Your task to perform on an android device: change notification settings in the gmail app Image 0: 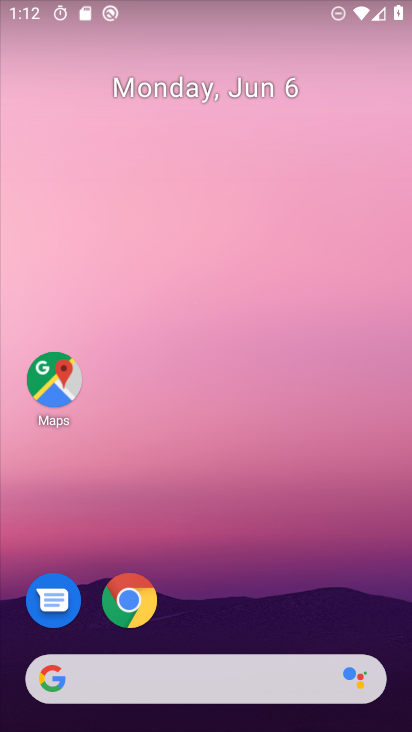
Step 0: drag from (207, 629) to (210, 201)
Your task to perform on an android device: change notification settings in the gmail app Image 1: 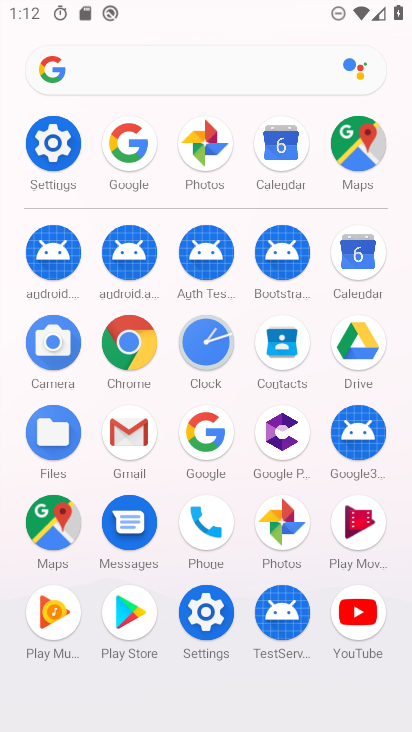
Step 1: click (125, 424)
Your task to perform on an android device: change notification settings in the gmail app Image 2: 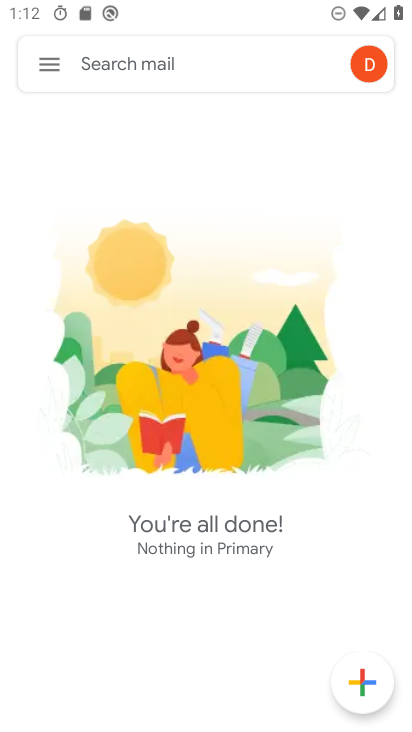
Step 2: click (47, 76)
Your task to perform on an android device: change notification settings in the gmail app Image 3: 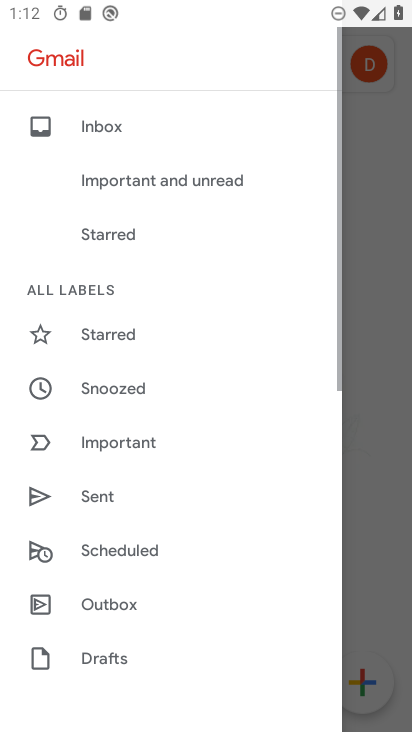
Step 3: drag from (157, 619) to (176, 259)
Your task to perform on an android device: change notification settings in the gmail app Image 4: 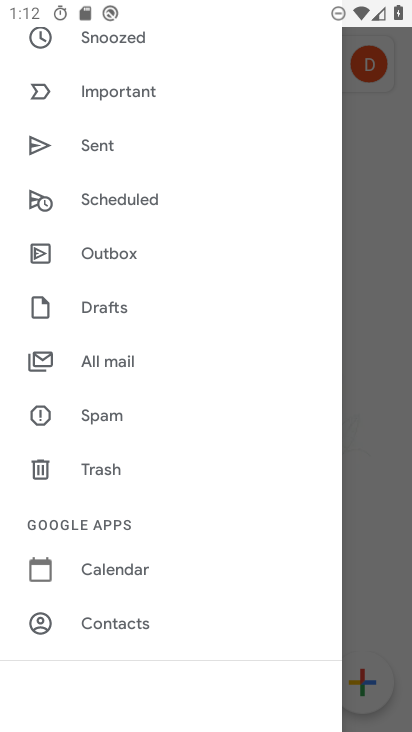
Step 4: drag from (164, 615) to (201, 378)
Your task to perform on an android device: change notification settings in the gmail app Image 5: 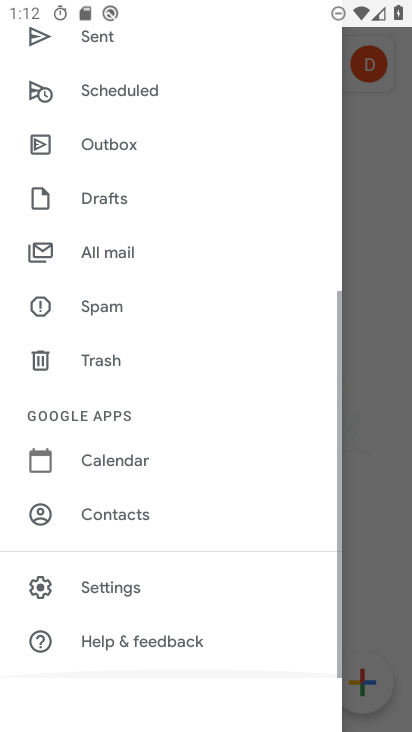
Step 5: click (113, 612)
Your task to perform on an android device: change notification settings in the gmail app Image 6: 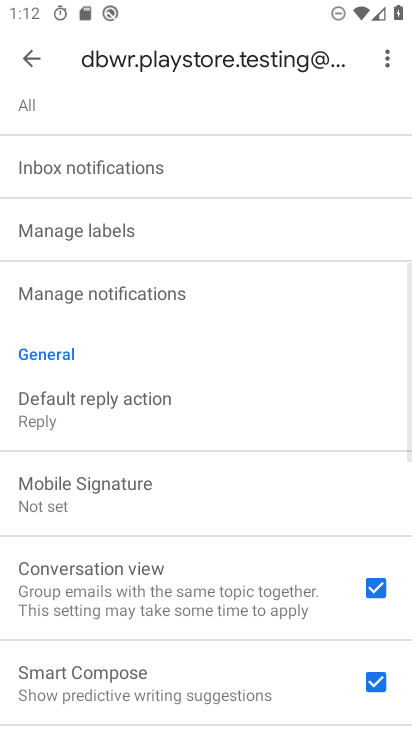
Step 6: drag from (159, 580) to (252, 297)
Your task to perform on an android device: change notification settings in the gmail app Image 7: 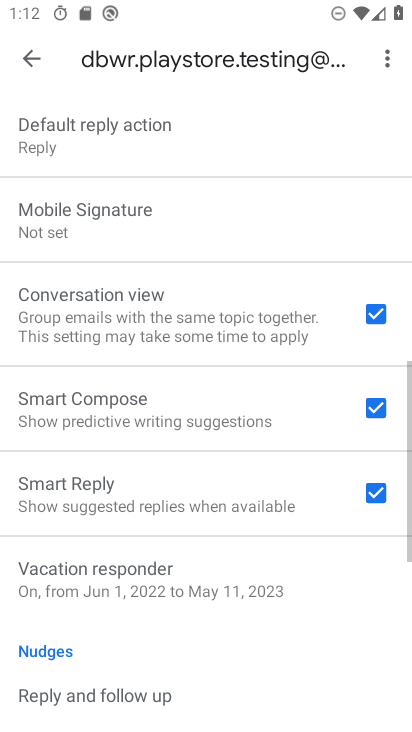
Step 7: drag from (183, 614) to (241, 235)
Your task to perform on an android device: change notification settings in the gmail app Image 8: 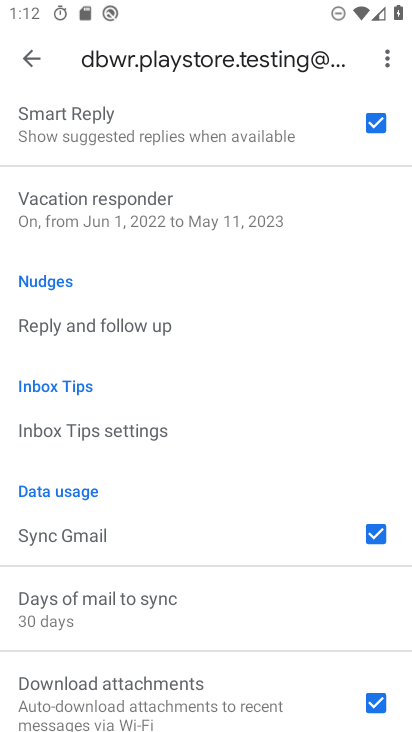
Step 8: drag from (246, 615) to (286, 241)
Your task to perform on an android device: change notification settings in the gmail app Image 9: 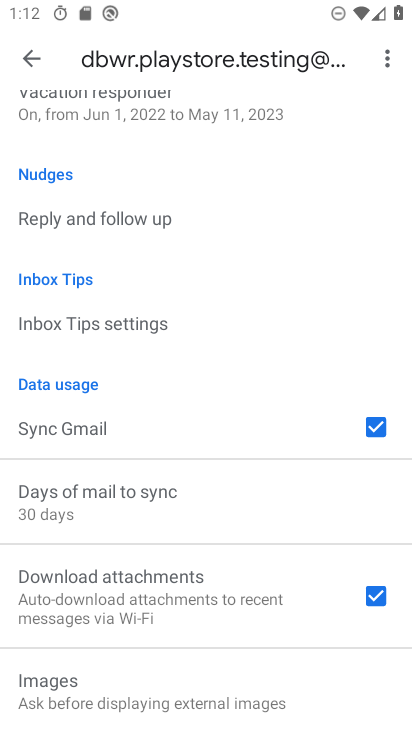
Step 9: drag from (189, 234) to (188, 583)
Your task to perform on an android device: change notification settings in the gmail app Image 10: 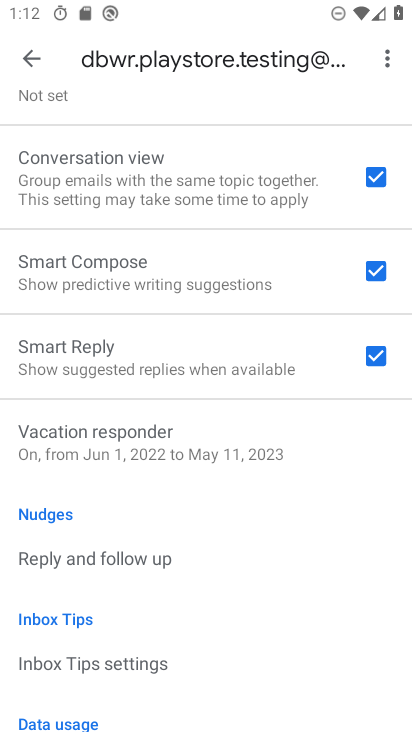
Step 10: drag from (155, 237) to (162, 590)
Your task to perform on an android device: change notification settings in the gmail app Image 11: 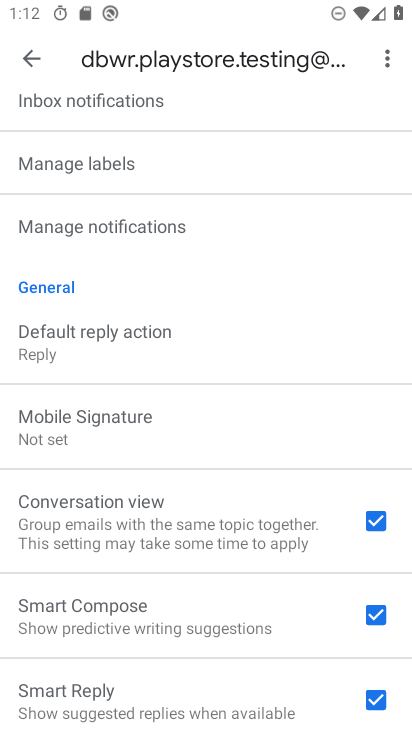
Step 11: click (188, 213)
Your task to perform on an android device: change notification settings in the gmail app Image 12: 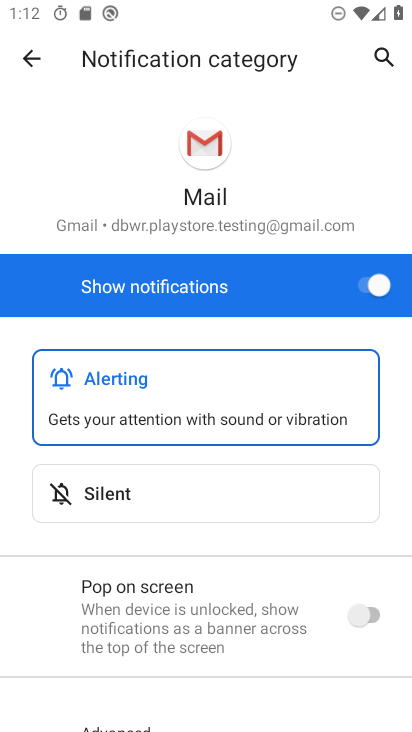
Step 12: click (353, 287)
Your task to perform on an android device: change notification settings in the gmail app Image 13: 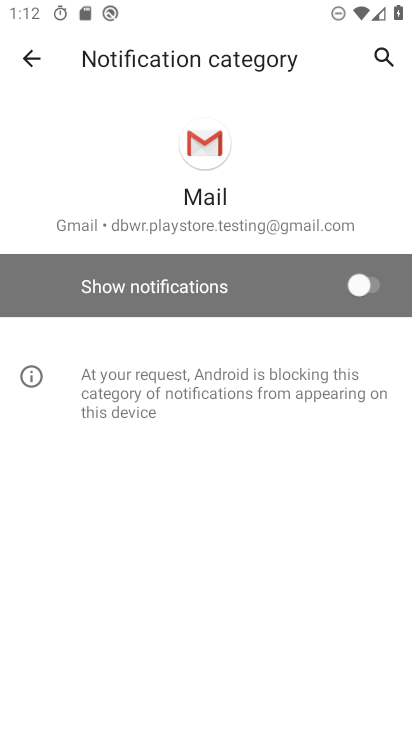
Step 13: task complete